Your task to perform on an android device: Go to Google maps Image 0: 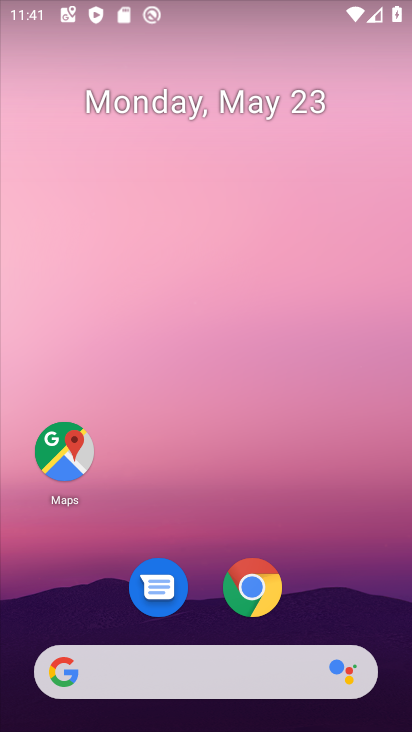
Step 0: click (72, 452)
Your task to perform on an android device: Go to Google maps Image 1: 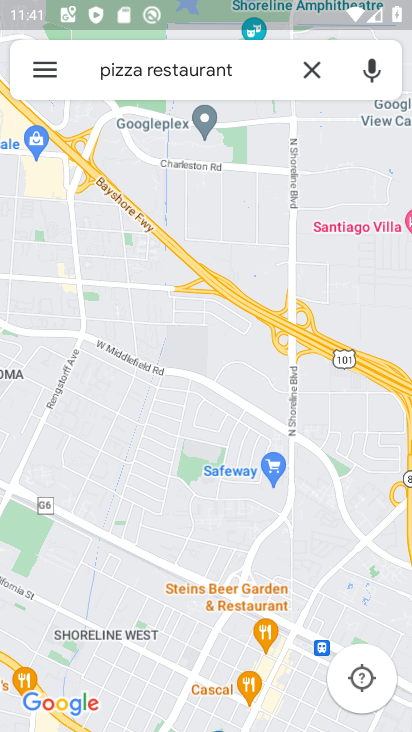
Step 1: task complete